Your task to perform on an android device: Go to battery settings Image 0: 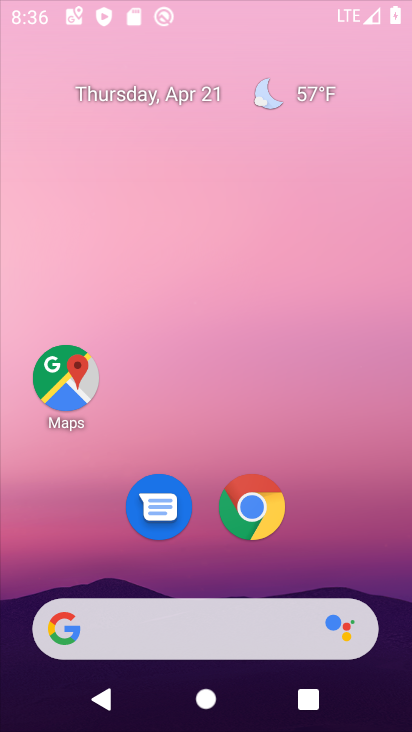
Step 0: click (325, 29)
Your task to perform on an android device: Go to battery settings Image 1: 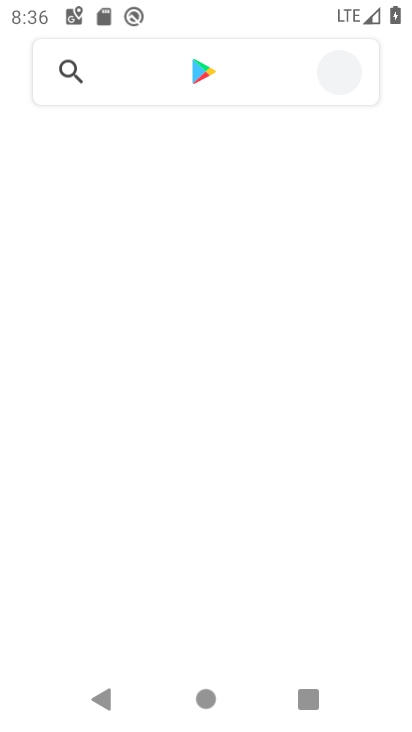
Step 1: press home button
Your task to perform on an android device: Go to battery settings Image 2: 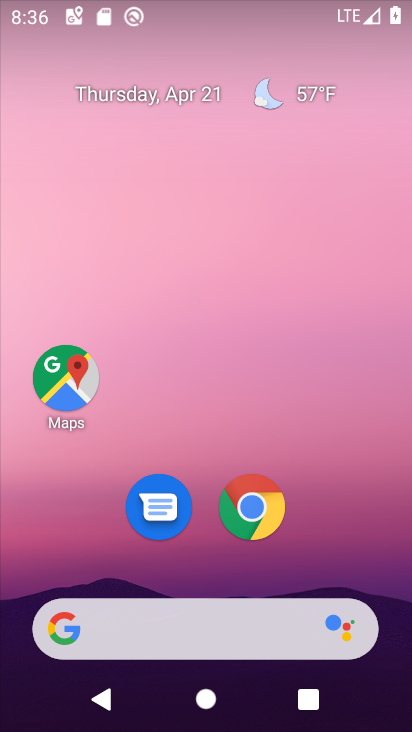
Step 2: drag from (354, 565) to (302, 6)
Your task to perform on an android device: Go to battery settings Image 3: 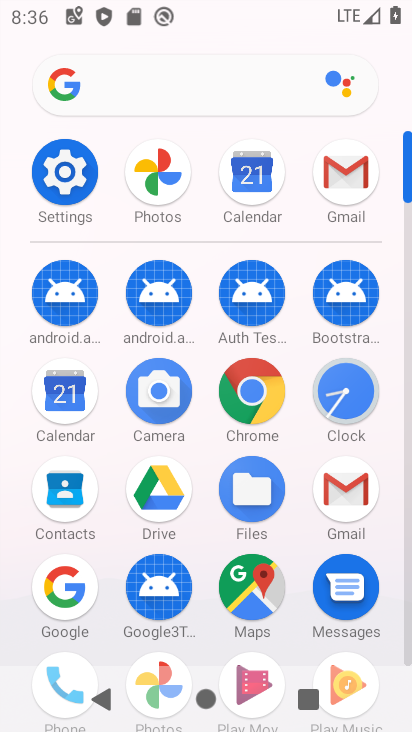
Step 3: click (58, 173)
Your task to perform on an android device: Go to battery settings Image 4: 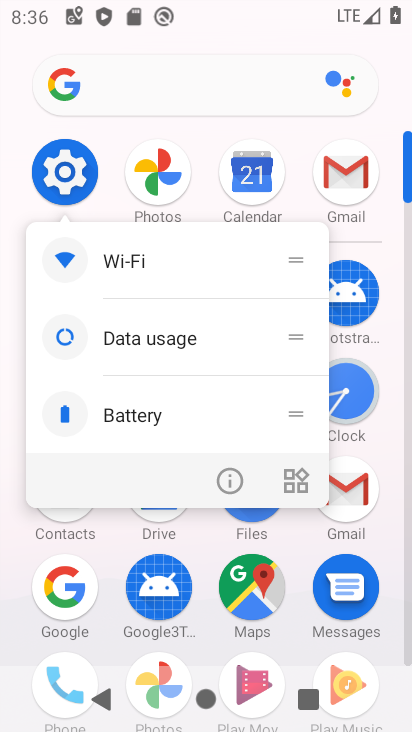
Step 4: click (128, 415)
Your task to perform on an android device: Go to battery settings Image 5: 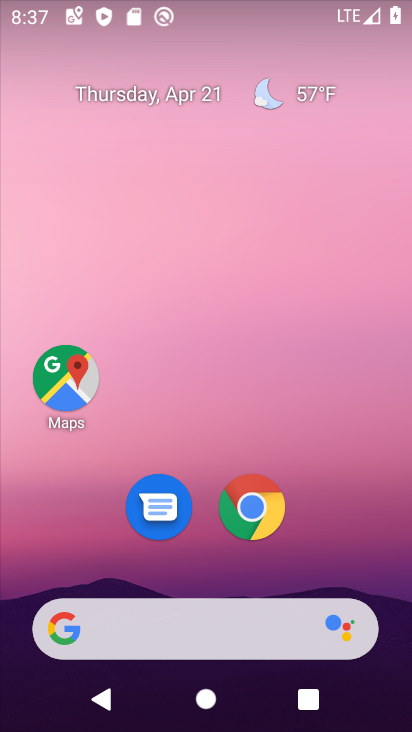
Step 5: drag from (338, 510) to (273, 8)
Your task to perform on an android device: Go to battery settings Image 6: 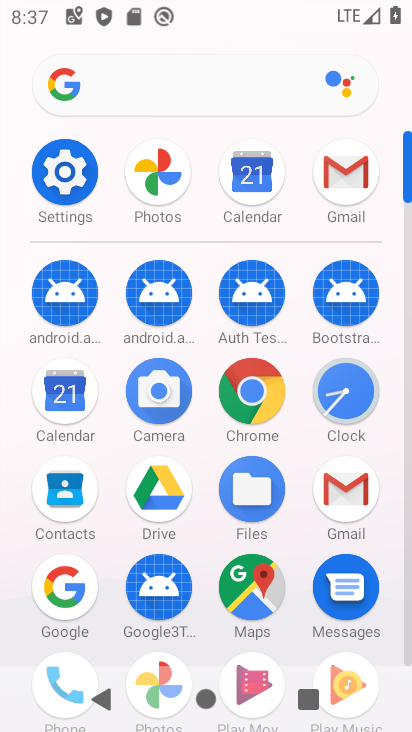
Step 6: click (71, 193)
Your task to perform on an android device: Go to battery settings Image 7: 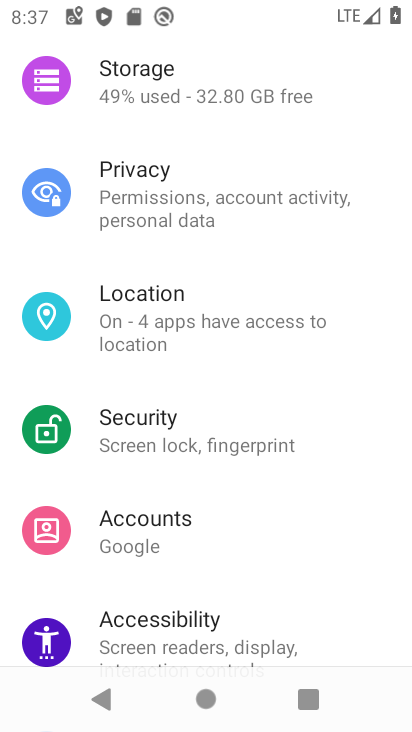
Step 7: drag from (295, 93) to (233, 696)
Your task to perform on an android device: Go to battery settings Image 8: 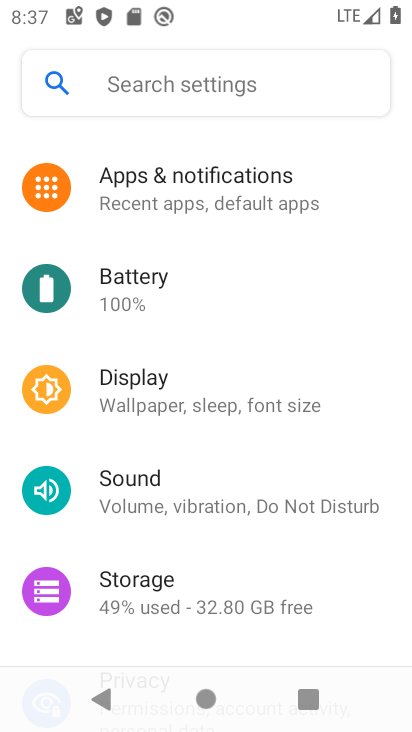
Step 8: click (196, 319)
Your task to perform on an android device: Go to battery settings Image 9: 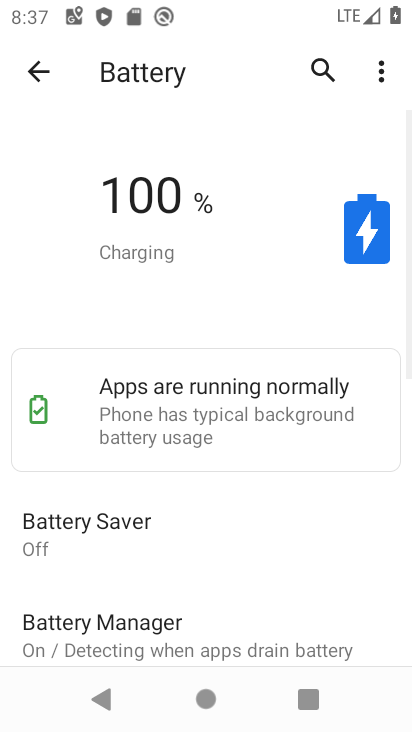
Step 9: task complete